Your task to perform on an android device: check battery use Image 0: 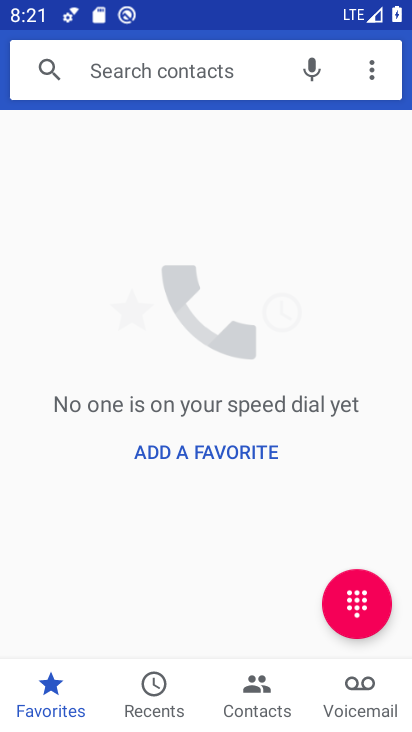
Step 0: click (243, 587)
Your task to perform on an android device: check battery use Image 1: 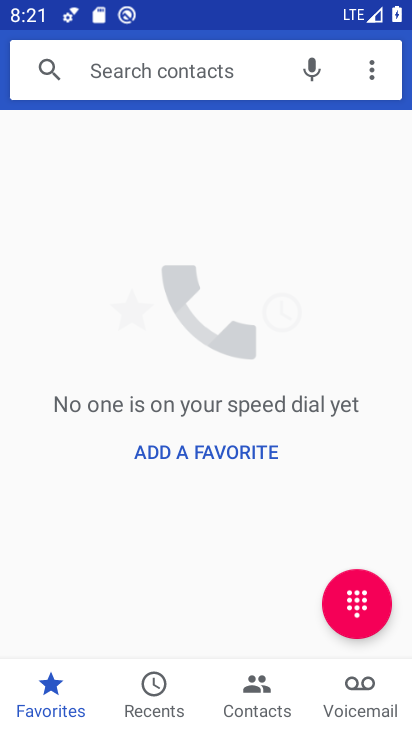
Step 1: press home button
Your task to perform on an android device: check battery use Image 2: 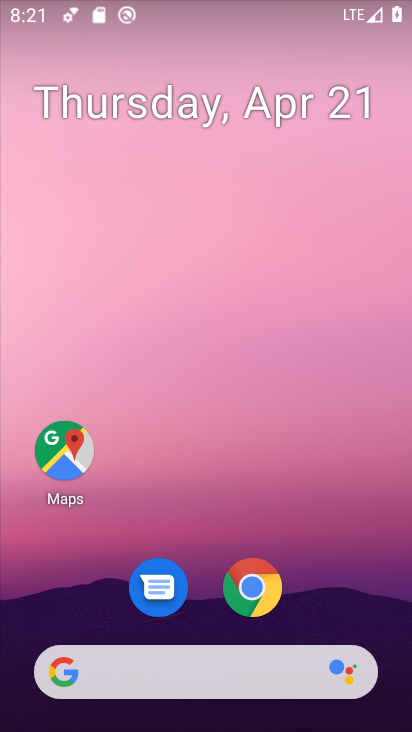
Step 2: click (364, 237)
Your task to perform on an android device: check battery use Image 3: 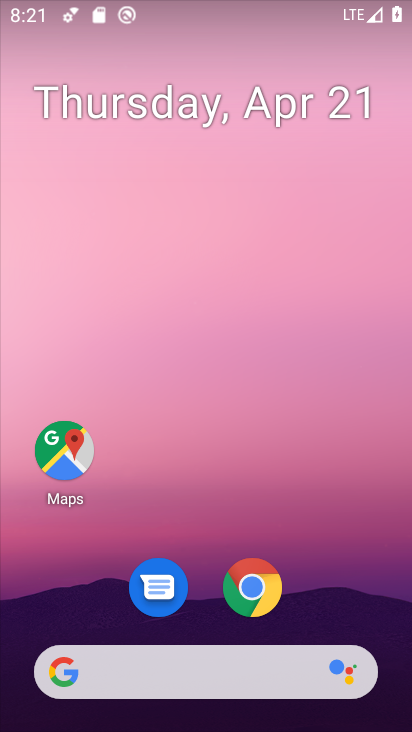
Step 3: click (387, 179)
Your task to perform on an android device: check battery use Image 4: 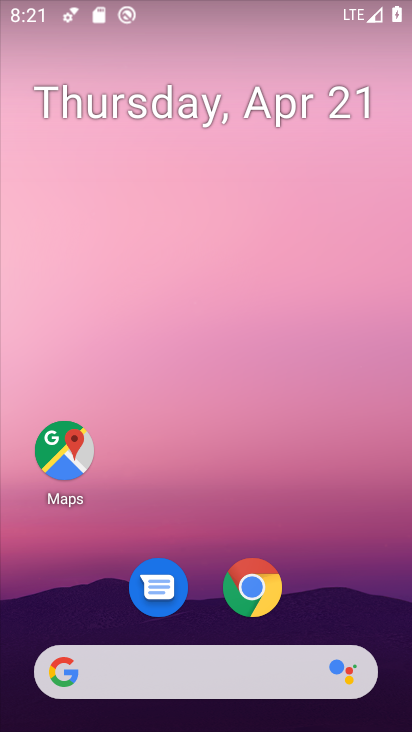
Step 4: drag from (386, 646) to (358, 170)
Your task to perform on an android device: check battery use Image 5: 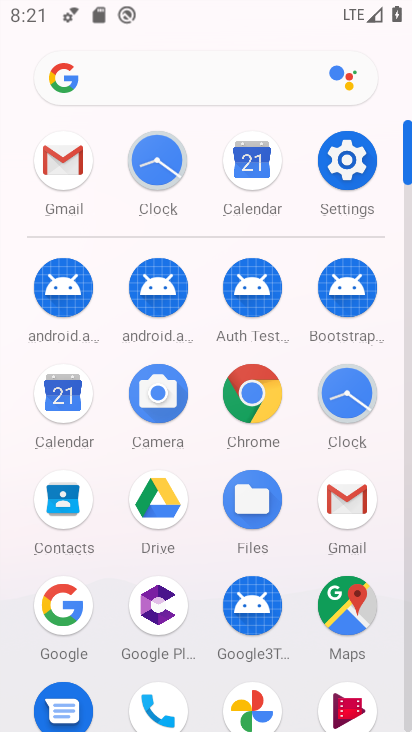
Step 5: click (350, 165)
Your task to perform on an android device: check battery use Image 6: 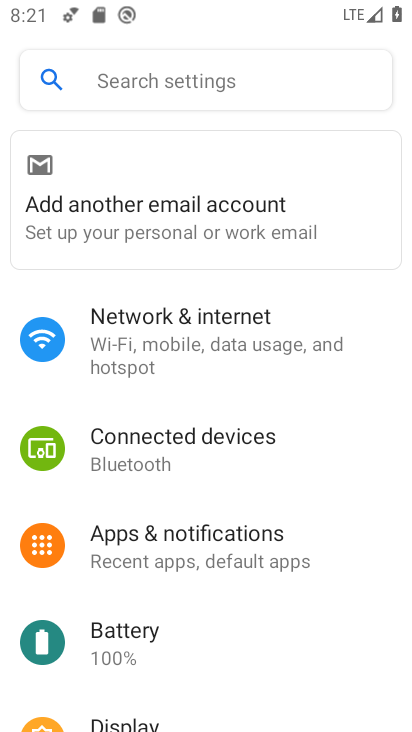
Step 6: click (106, 646)
Your task to perform on an android device: check battery use Image 7: 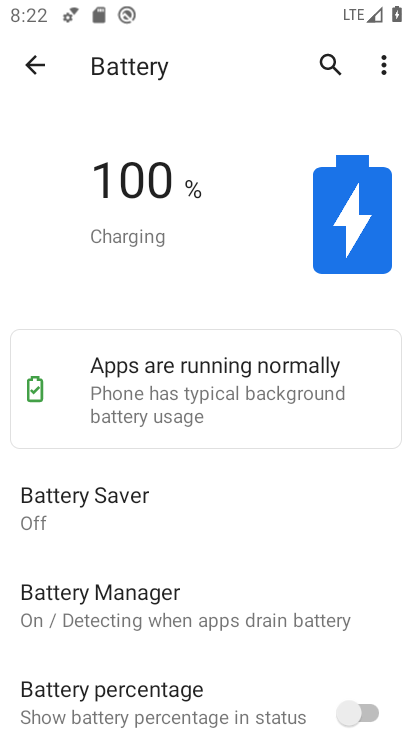
Step 7: click (378, 62)
Your task to perform on an android device: check battery use Image 8: 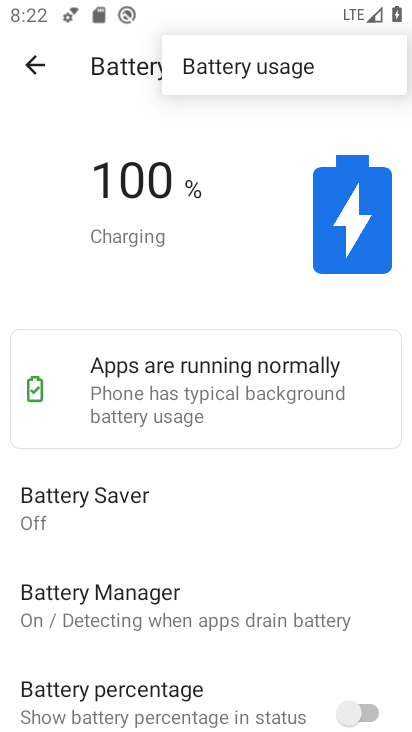
Step 8: click (249, 61)
Your task to perform on an android device: check battery use Image 9: 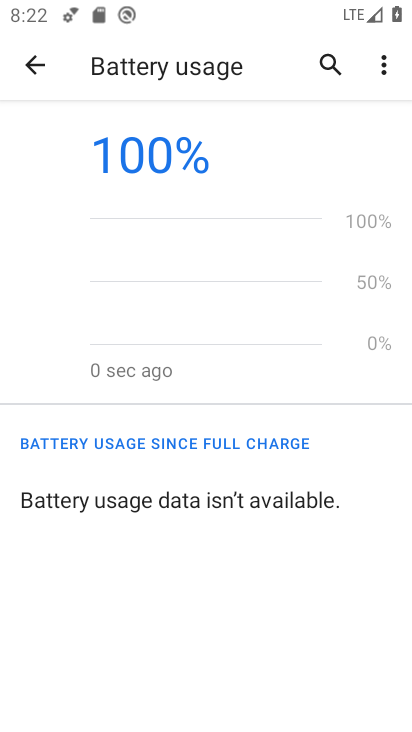
Step 9: task complete